Your task to perform on an android device: check storage Image 0: 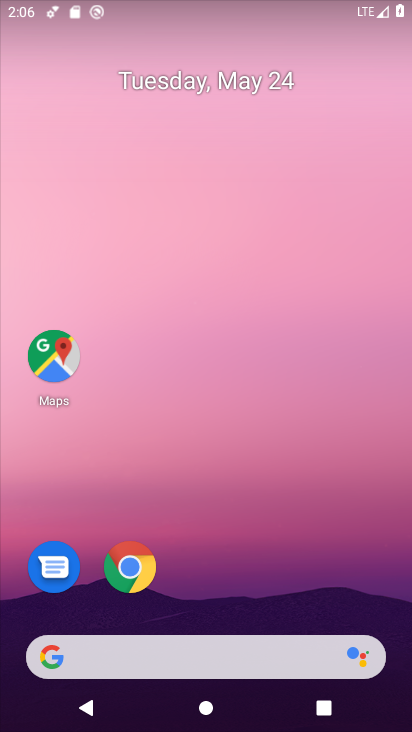
Step 0: drag from (214, 516) to (272, 166)
Your task to perform on an android device: check storage Image 1: 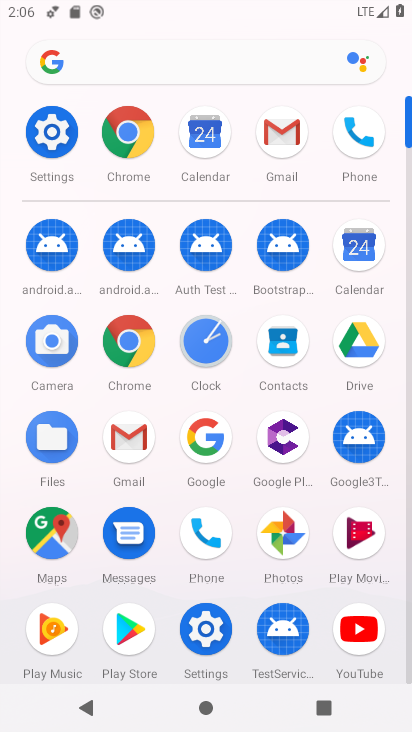
Step 1: click (202, 634)
Your task to perform on an android device: check storage Image 2: 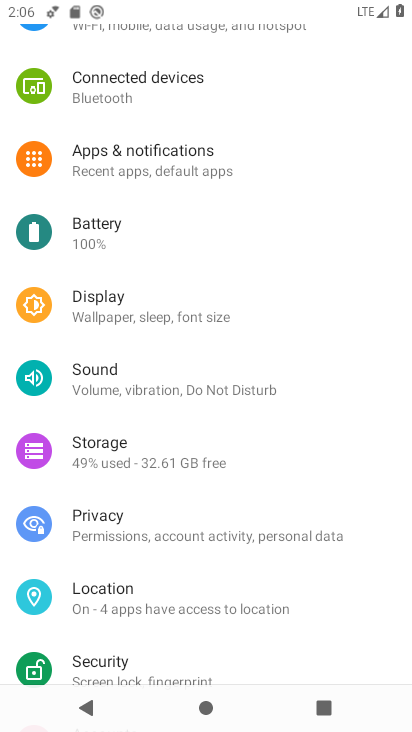
Step 2: drag from (195, 212) to (195, 265)
Your task to perform on an android device: check storage Image 3: 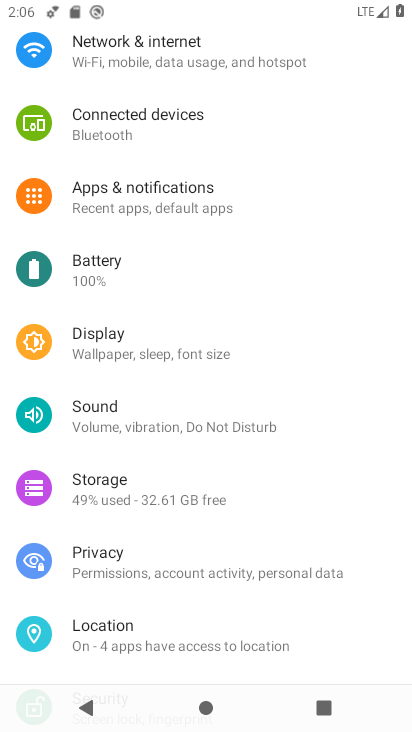
Step 3: click (126, 497)
Your task to perform on an android device: check storage Image 4: 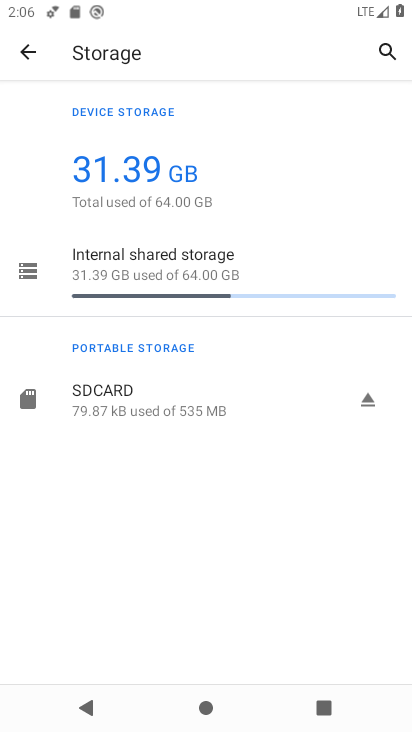
Step 4: task complete